Your task to perform on an android device: Open Google Maps and go to "Timeline" Image 0: 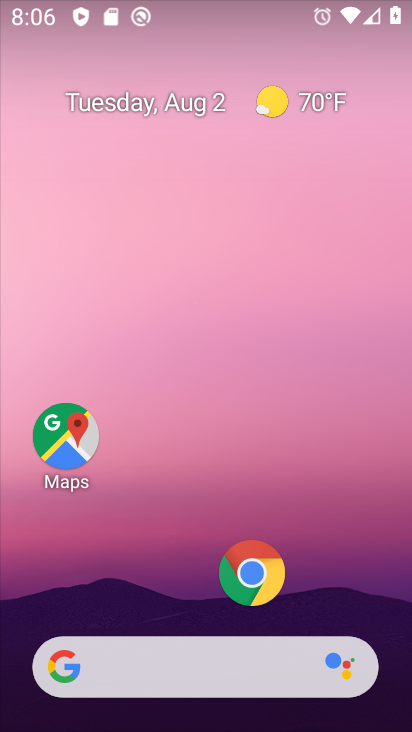
Step 0: press home button
Your task to perform on an android device: Open Google Maps and go to "Timeline" Image 1: 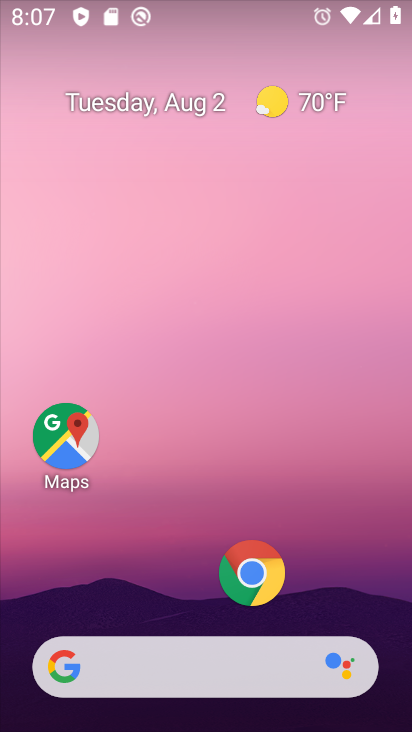
Step 1: drag from (190, 589) to (237, 11)
Your task to perform on an android device: Open Google Maps and go to "Timeline" Image 2: 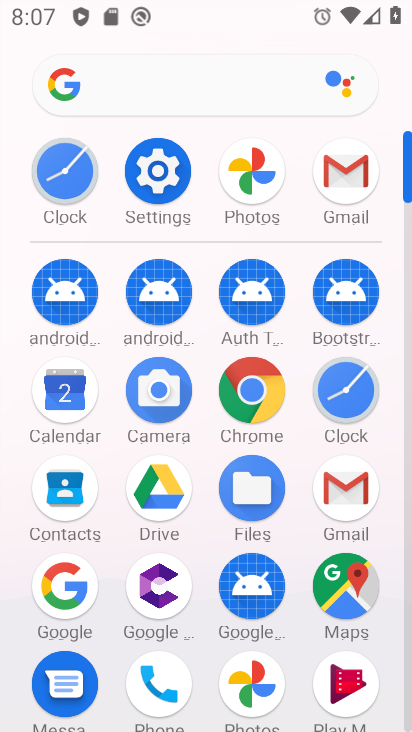
Step 2: click (348, 583)
Your task to perform on an android device: Open Google Maps and go to "Timeline" Image 3: 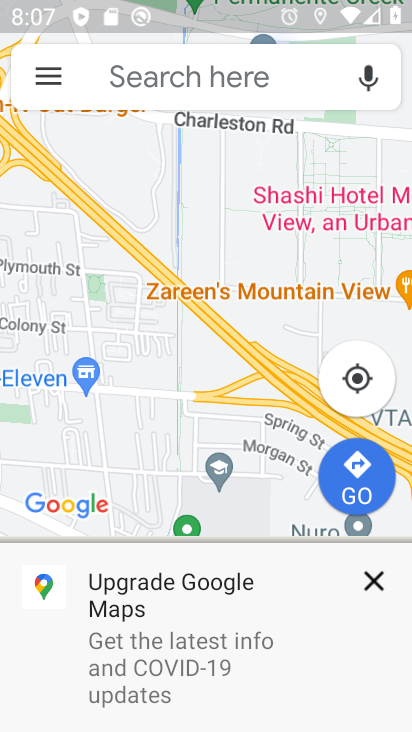
Step 3: click (50, 72)
Your task to perform on an android device: Open Google Maps and go to "Timeline" Image 4: 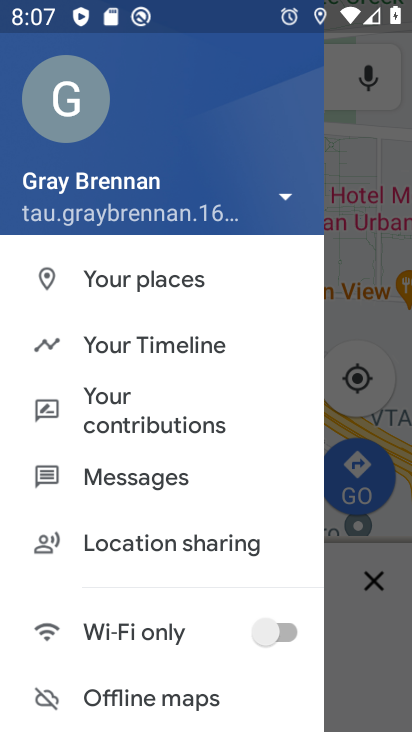
Step 4: click (133, 341)
Your task to perform on an android device: Open Google Maps and go to "Timeline" Image 5: 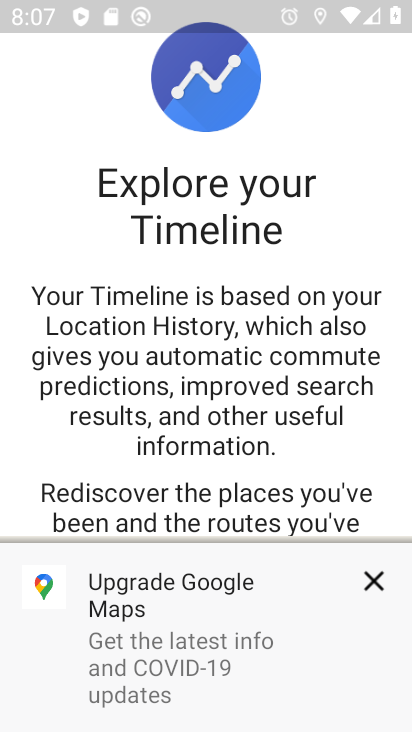
Step 5: click (371, 579)
Your task to perform on an android device: Open Google Maps and go to "Timeline" Image 6: 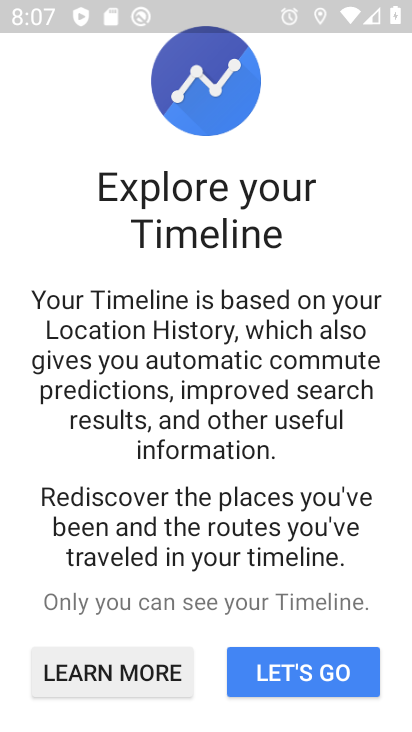
Step 6: click (308, 669)
Your task to perform on an android device: Open Google Maps and go to "Timeline" Image 7: 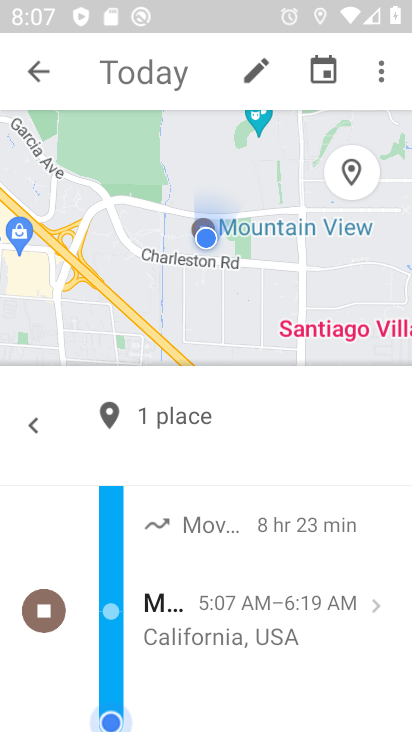
Step 7: task complete